Your task to perform on an android device: set default search engine in the chrome app Image 0: 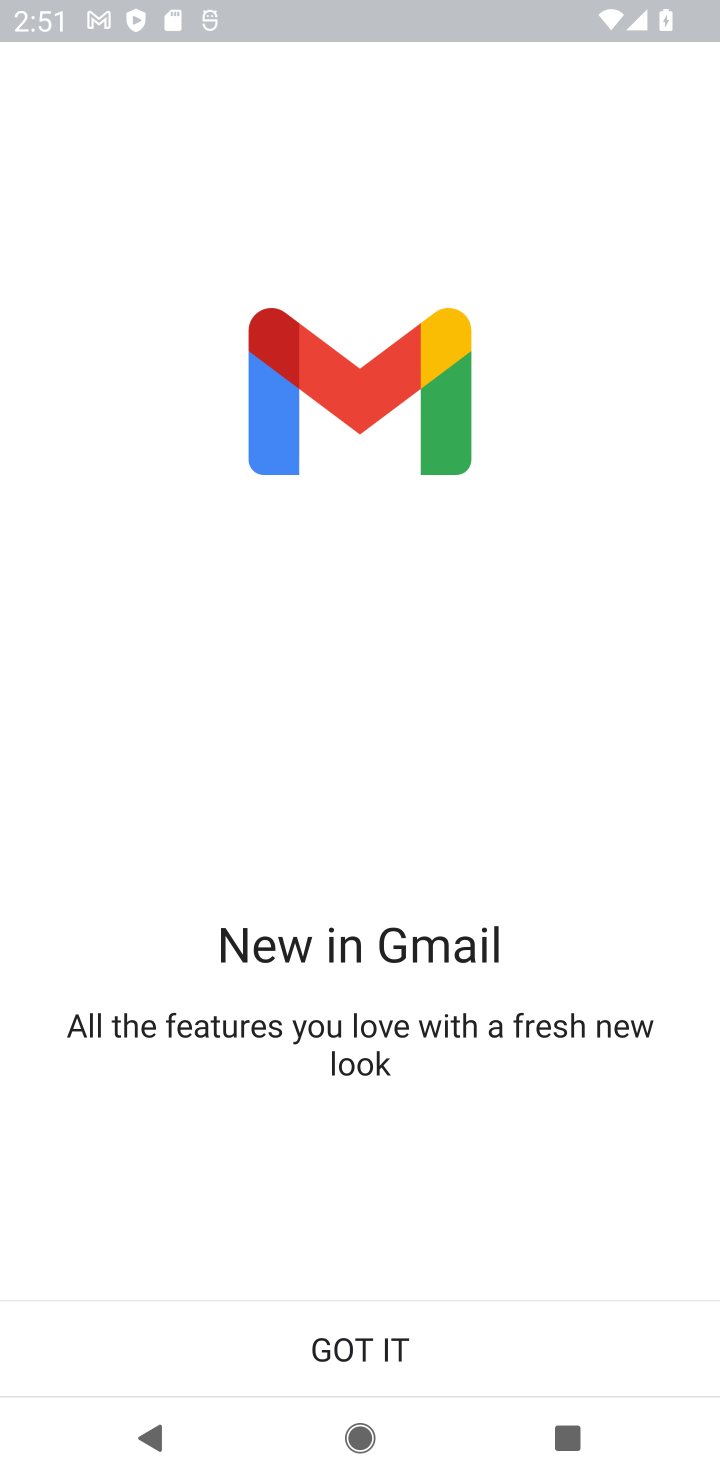
Step 0: task complete